Your task to perform on an android device: What is the news today? Image 0: 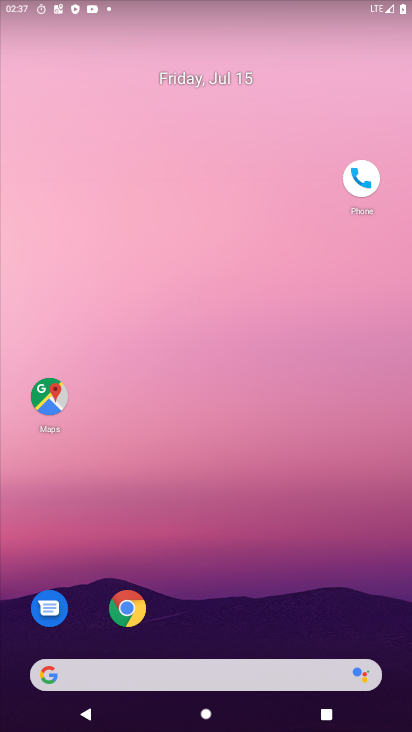
Step 0: drag from (208, 630) to (313, 7)
Your task to perform on an android device: What is the news today? Image 1: 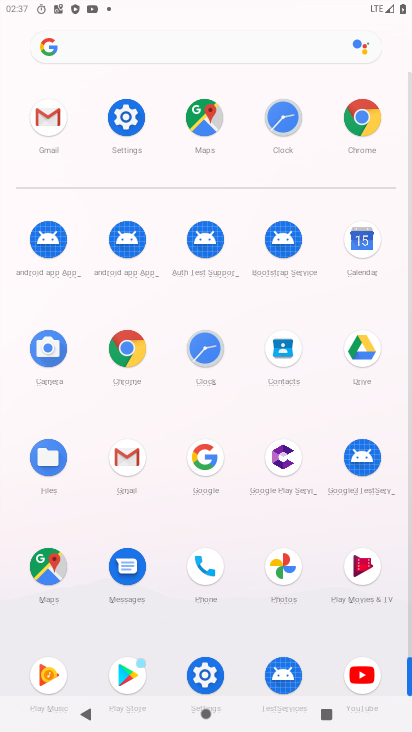
Step 1: click (174, 42)
Your task to perform on an android device: What is the news today? Image 2: 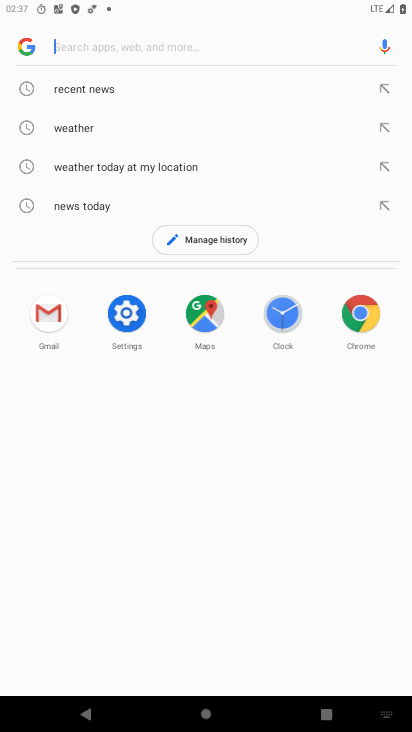
Step 2: click (115, 198)
Your task to perform on an android device: What is the news today? Image 3: 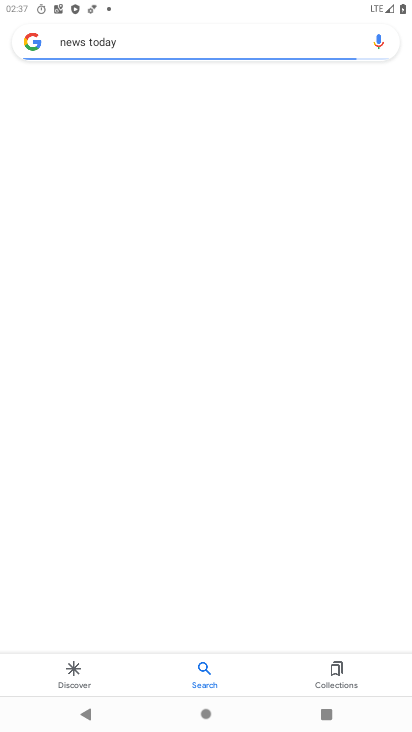
Step 3: task complete